Your task to perform on an android device: Open privacy settings Image 0: 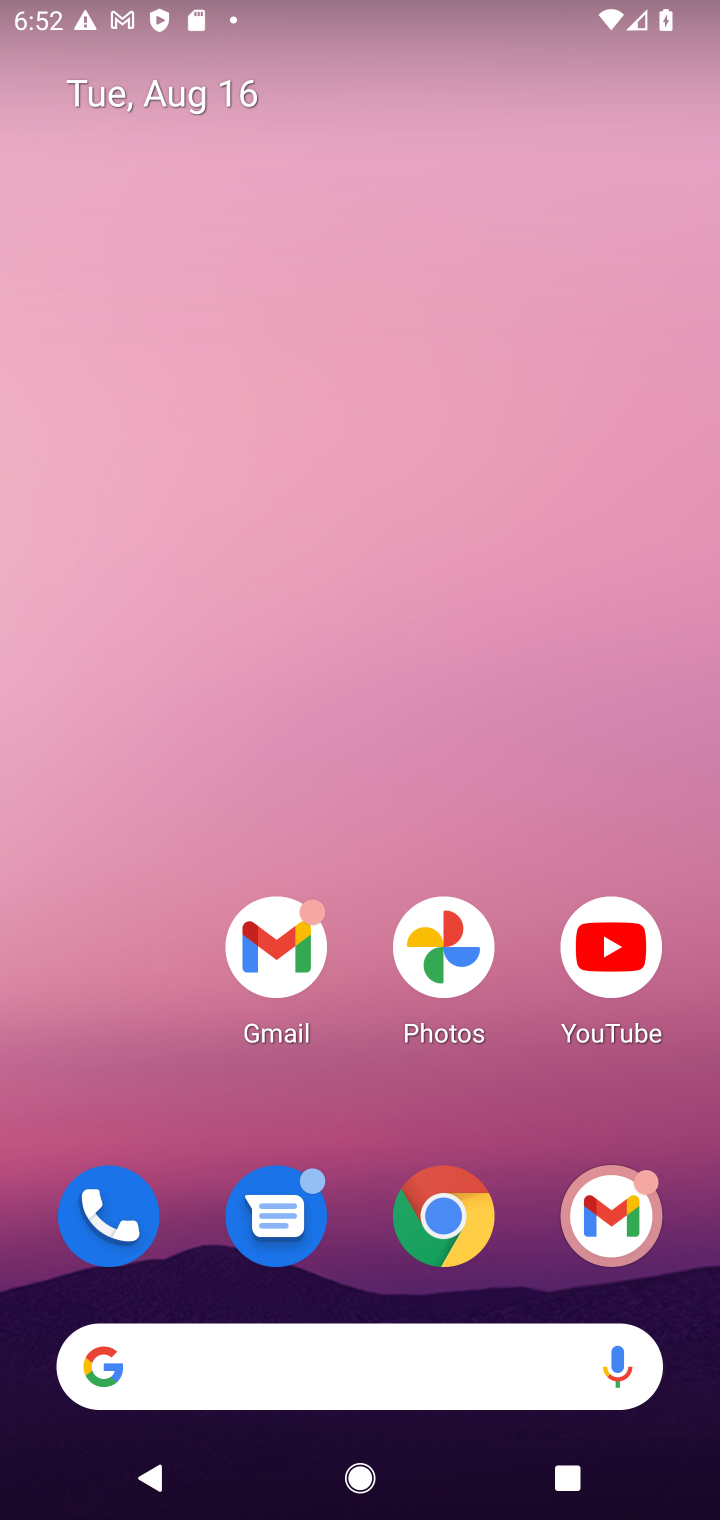
Step 0: press home button
Your task to perform on an android device: Open privacy settings Image 1: 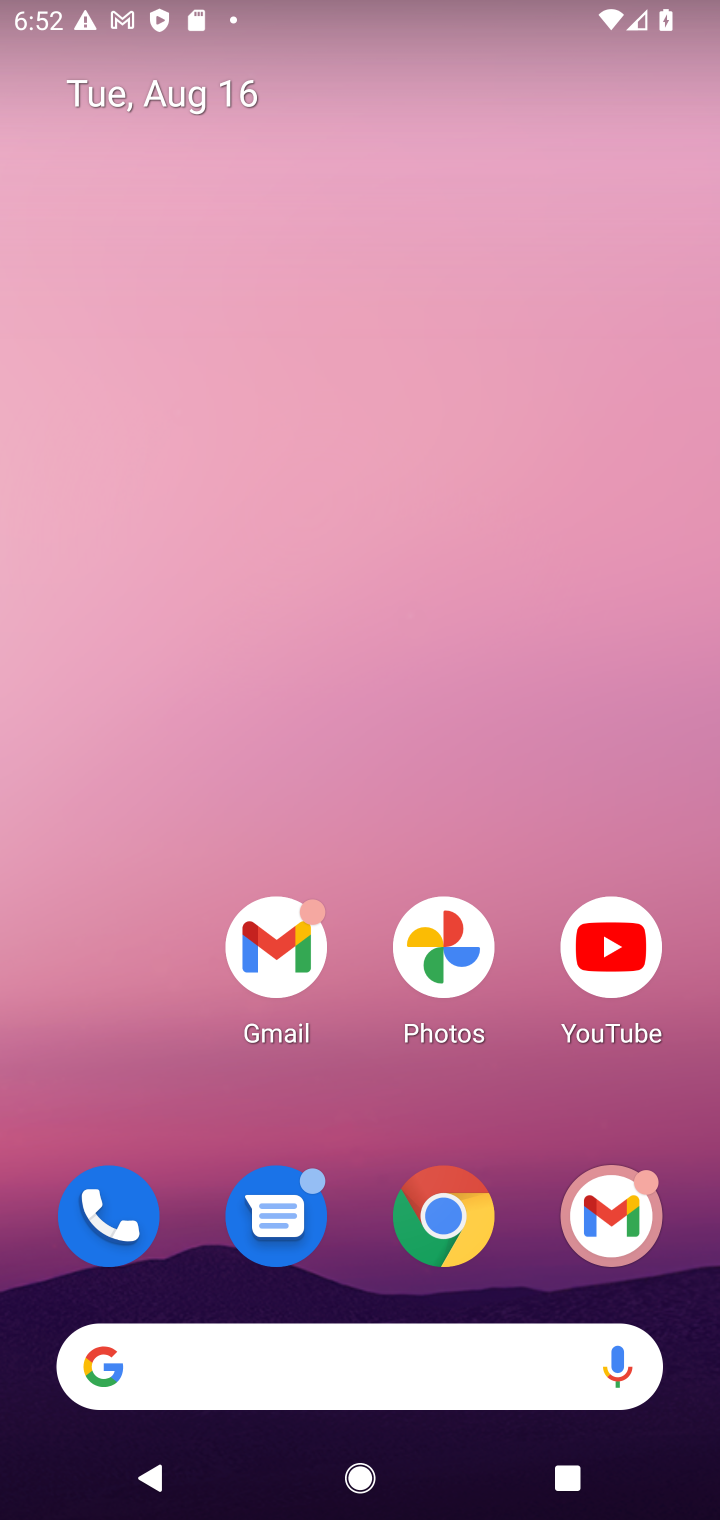
Step 1: drag from (147, 1101) to (133, 256)
Your task to perform on an android device: Open privacy settings Image 2: 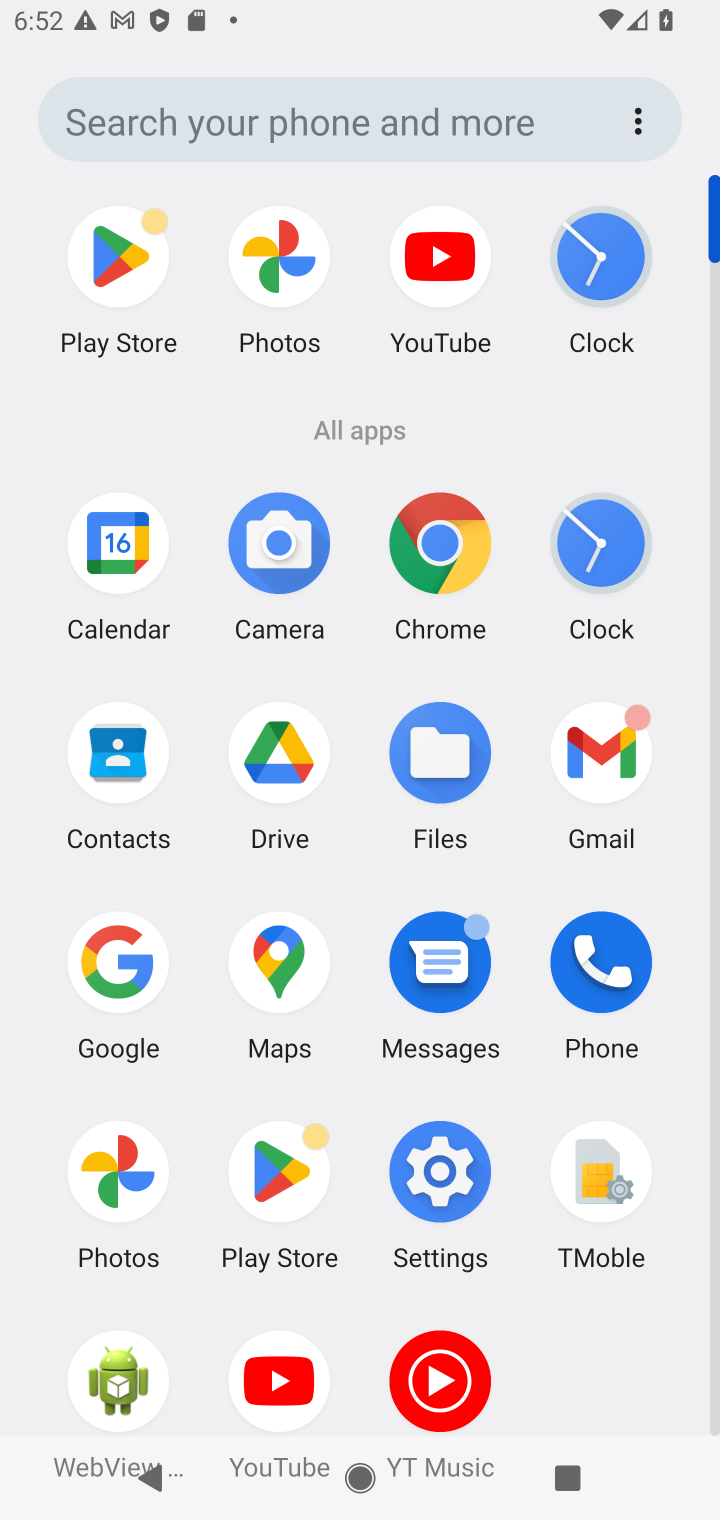
Step 2: click (453, 1169)
Your task to perform on an android device: Open privacy settings Image 3: 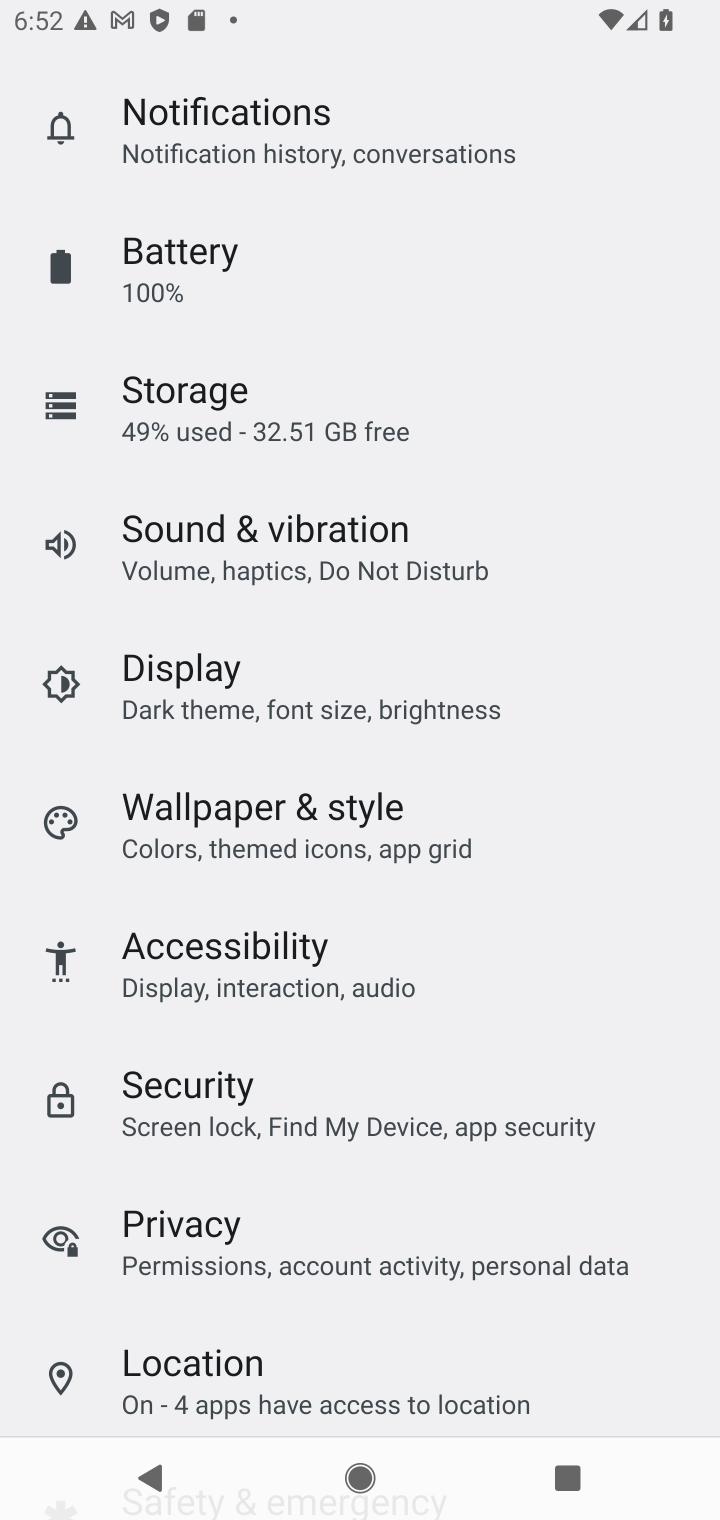
Step 3: drag from (646, 1029) to (651, 732)
Your task to perform on an android device: Open privacy settings Image 4: 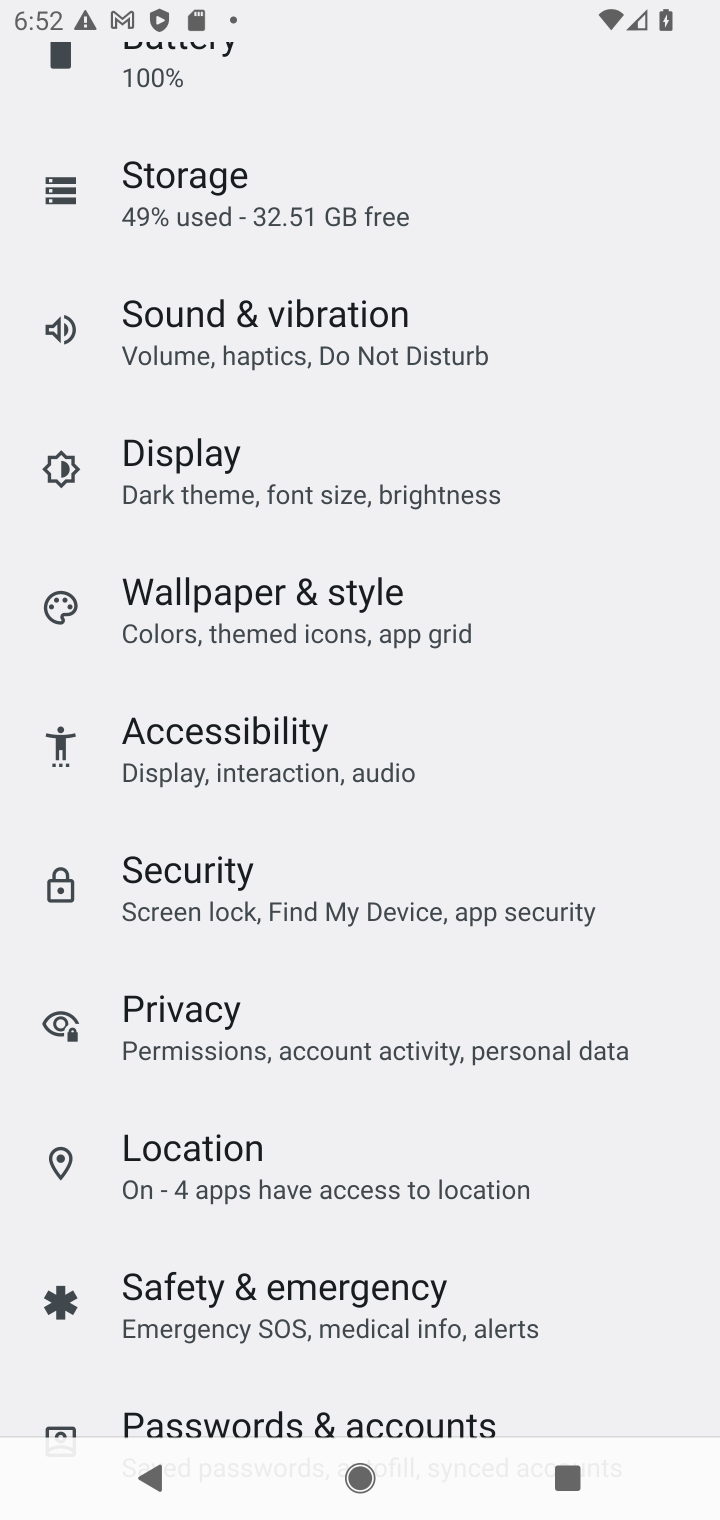
Step 4: drag from (649, 1125) to (647, 835)
Your task to perform on an android device: Open privacy settings Image 5: 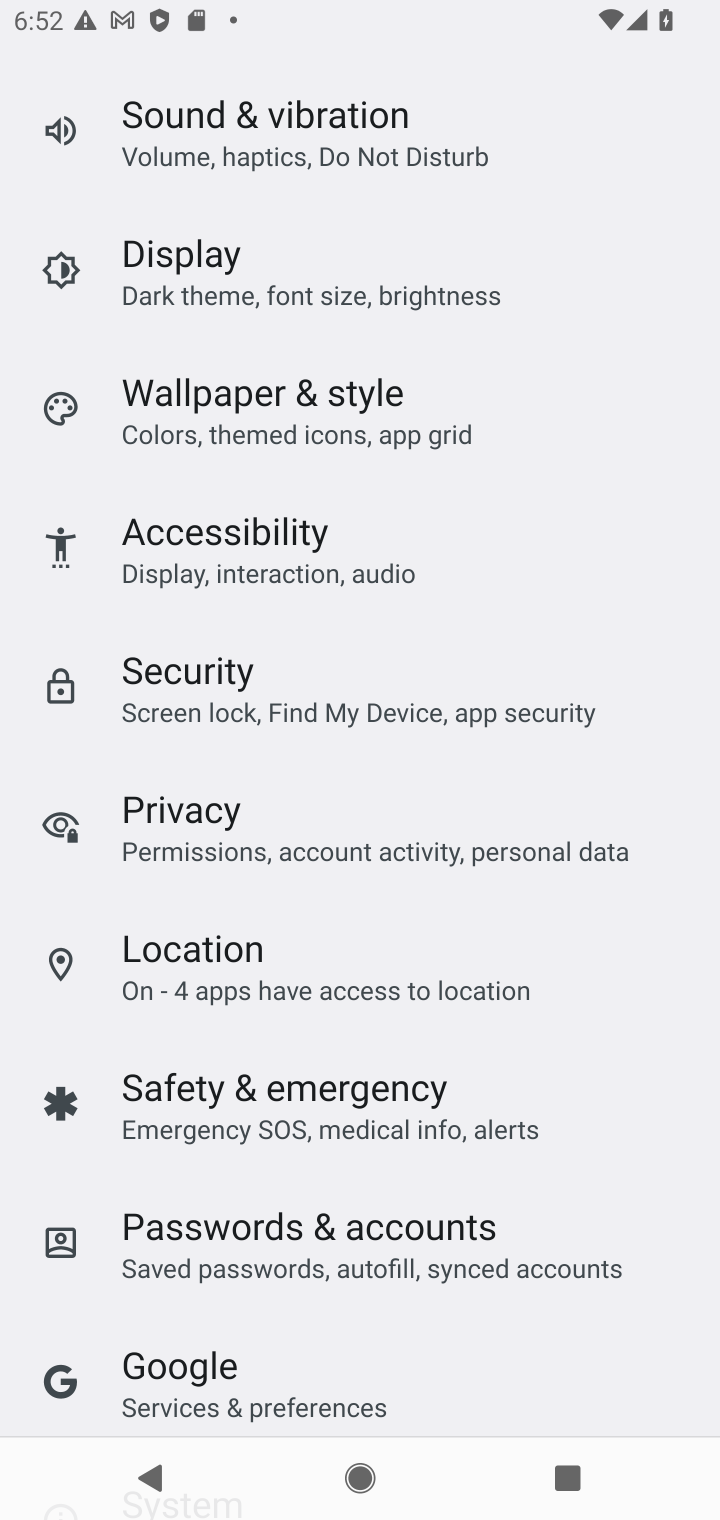
Step 5: drag from (625, 1158) to (656, 826)
Your task to perform on an android device: Open privacy settings Image 6: 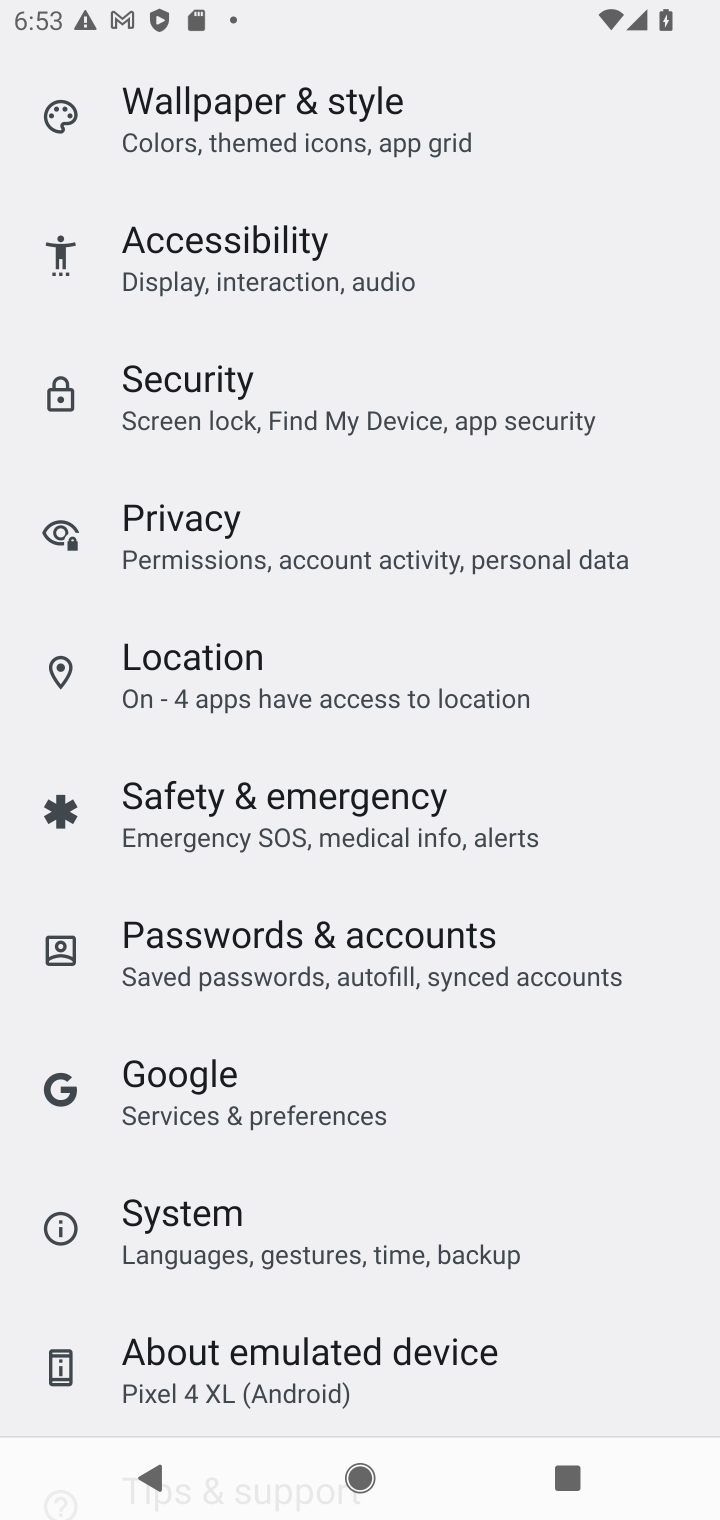
Step 6: drag from (588, 1231) to (625, 890)
Your task to perform on an android device: Open privacy settings Image 7: 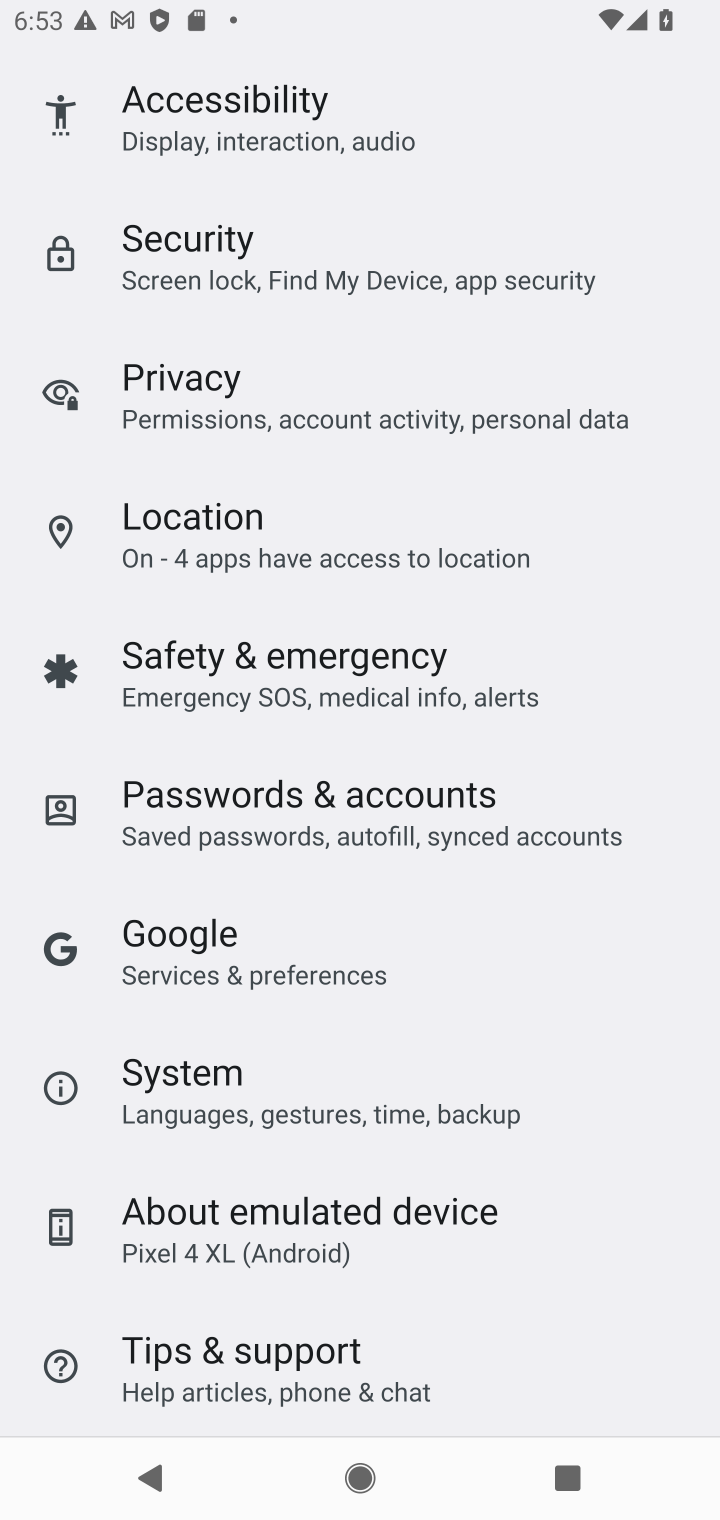
Step 7: drag from (642, 619) to (648, 907)
Your task to perform on an android device: Open privacy settings Image 8: 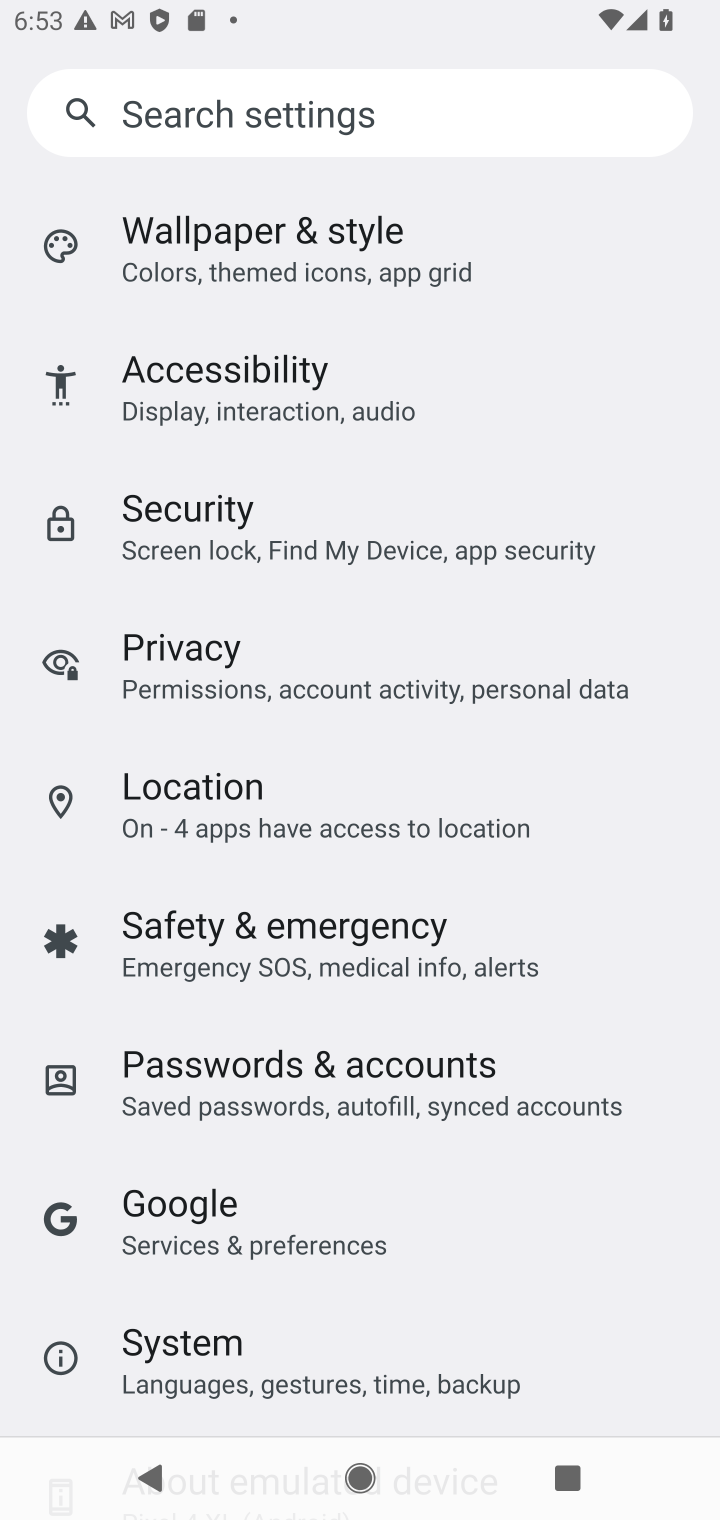
Step 8: drag from (665, 608) to (670, 835)
Your task to perform on an android device: Open privacy settings Image 9: 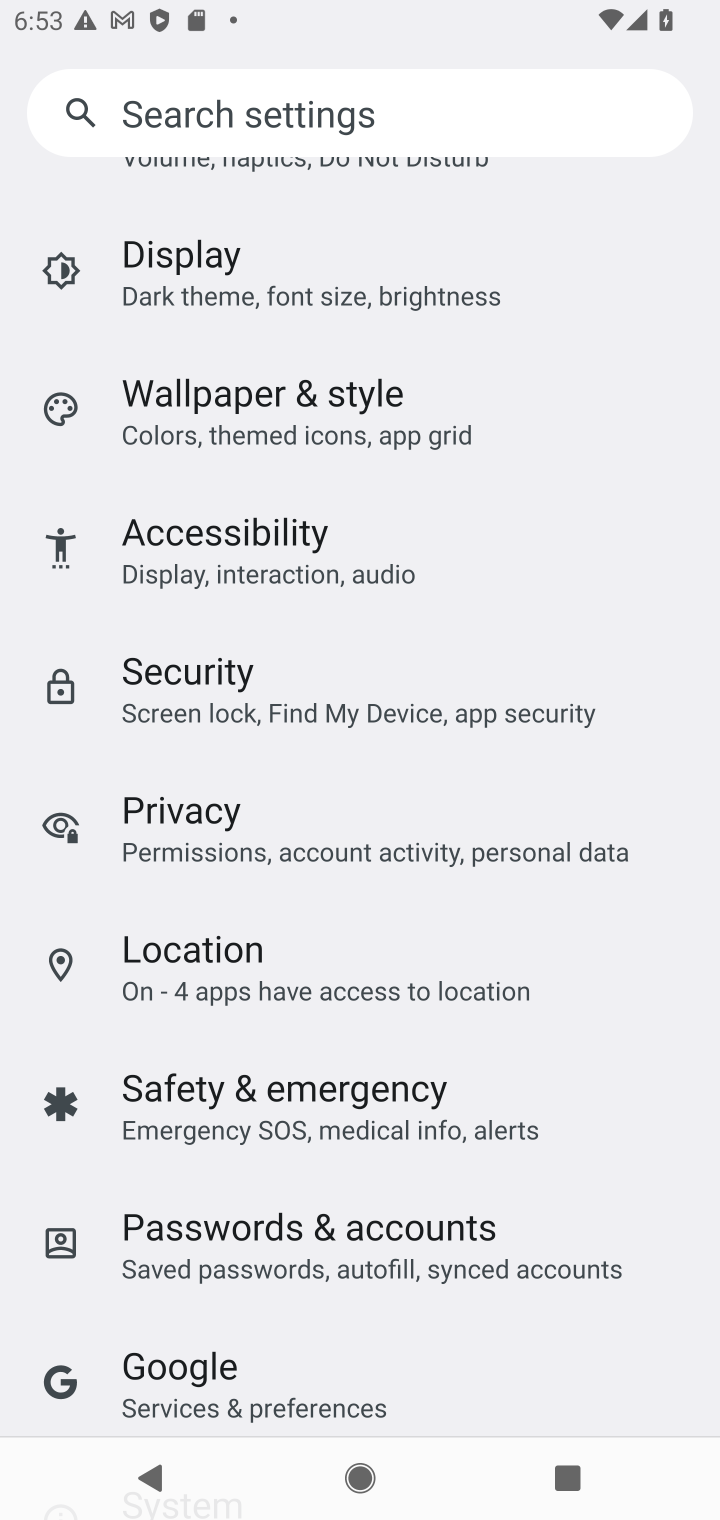
Step 9: click (508, 822)
Your task to perform on an android device: Open privacy settings Image 10: 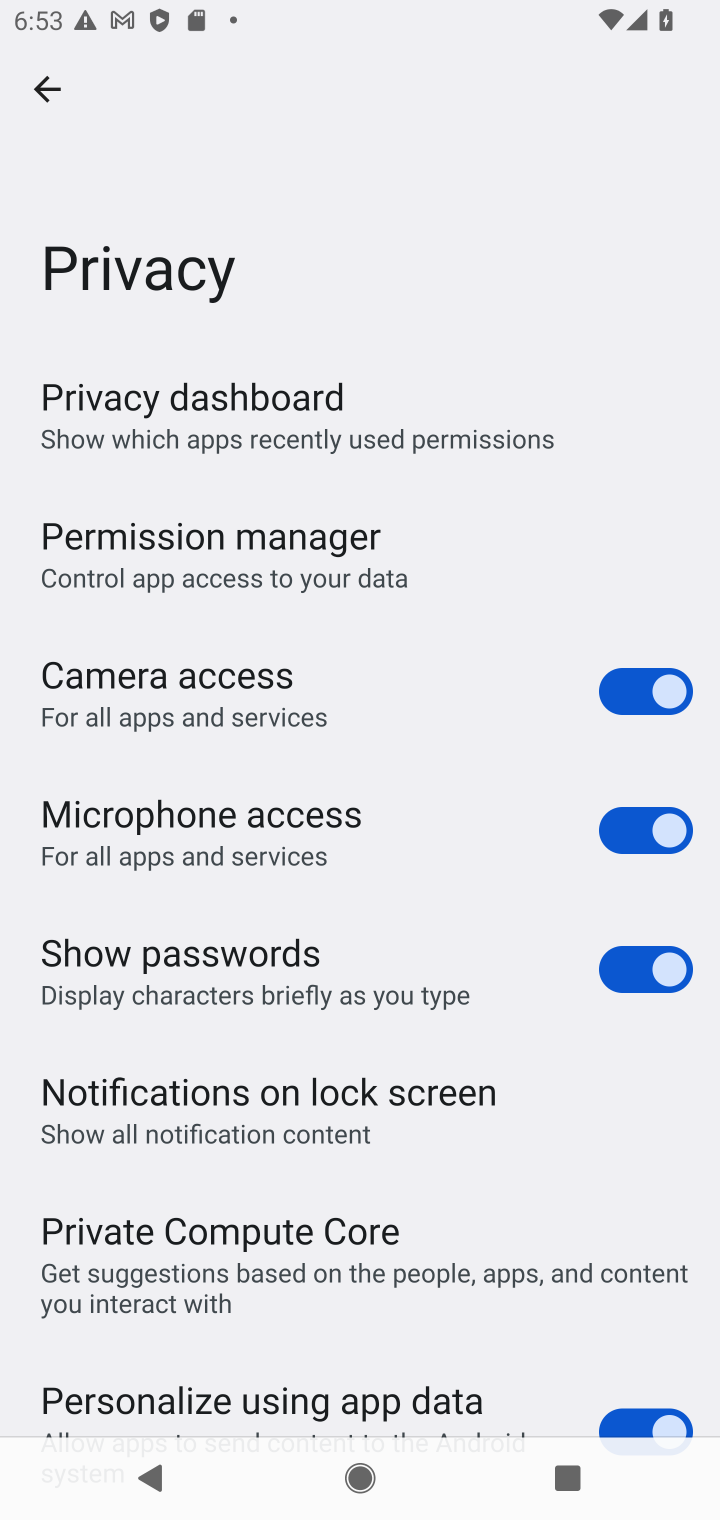
Step 10: task complete